Your task to perform on an android device: turn on javascript in the chrome app Image 0: 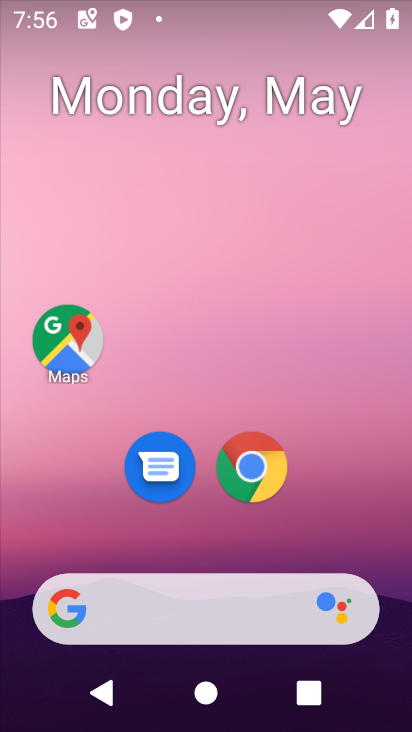
Step 0: click (261, 465)
Your task to perform on an android device: turn on javascript in the chrome app Image 1: 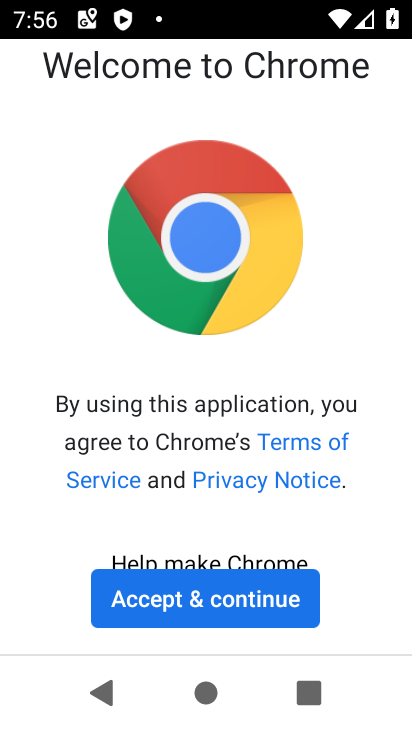
Step 1: click (282, 607)
Your task to perform on an android device: turn on javascript in the chrome app Image 2: 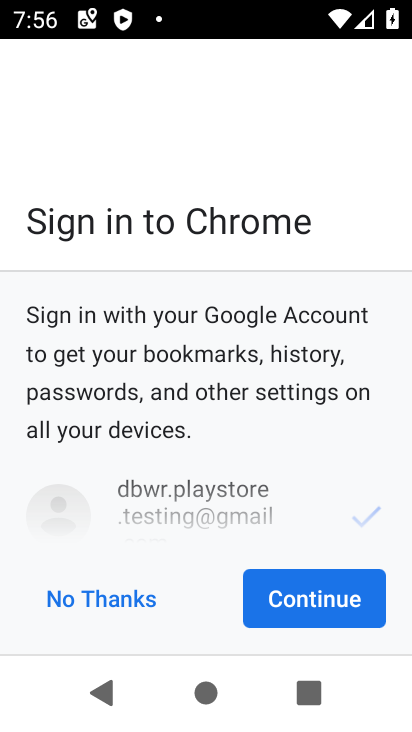
Step 2: click (328, 596)
Your task to perform on an android device: turn on javascript in the chrome app Image 3: 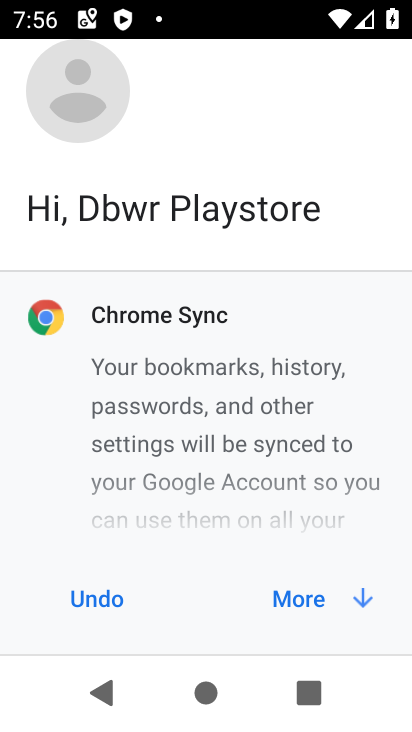
Step 3: click (338, 596)
Your task to perform on an android device: turn on javascript in the chrome app Image 4: 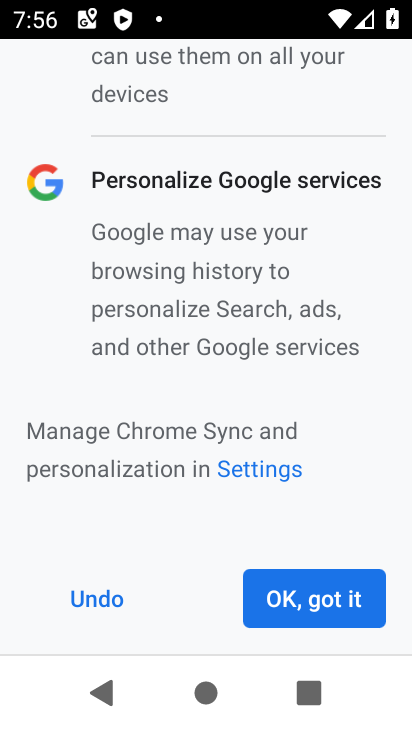
Step 4: click (333, 599)
Your task to perform on an android device: turn on javascript in the chrome app Image 5: 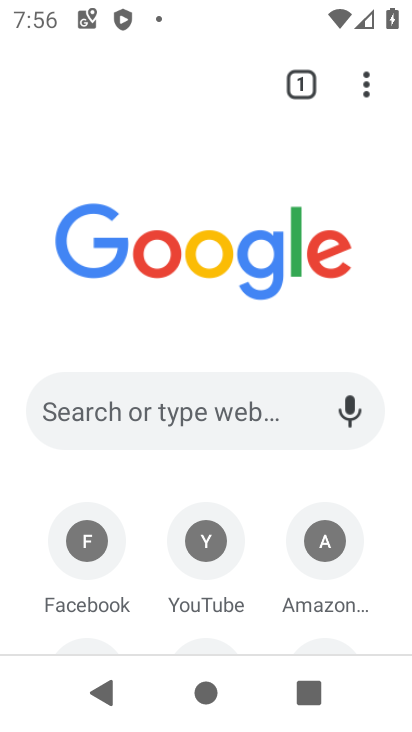
Step 5: click (372, 80)
Your task to perform on an android device: turn on javascript in the chrome app Image 6: 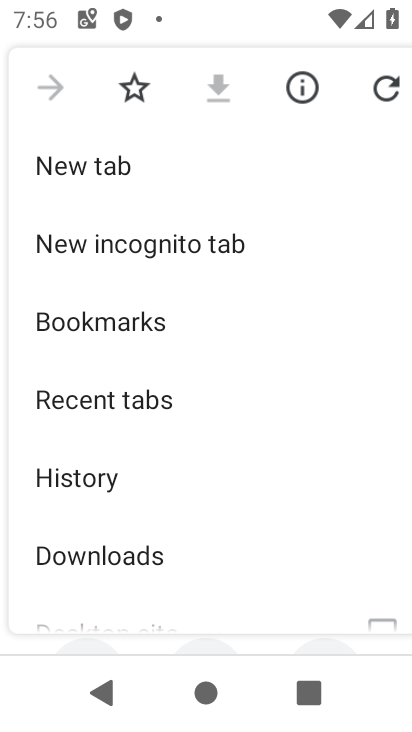
Step 6: drag from (234, 576) to (221, 105)
Your task to perform on an android device: turn on javascript in the chrome app Image 7: 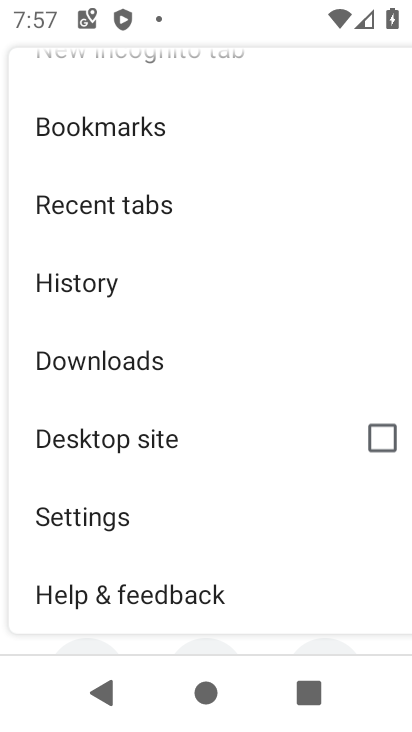
Step 7: click (168, 523)
Your task to perform on an android device: turn on javascript in the chrome app Image 8: 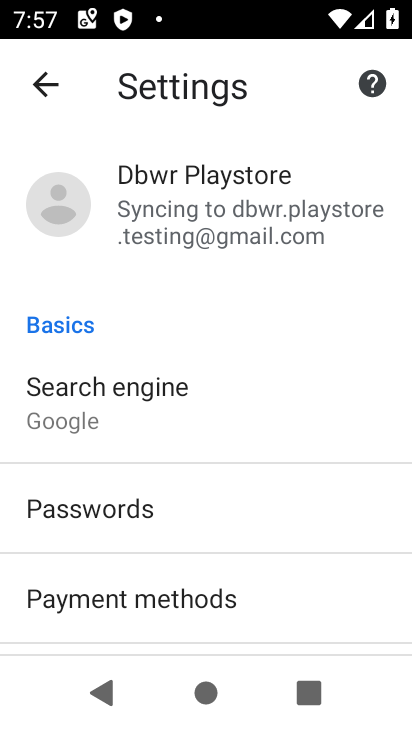
Step 8: drag from (223, 574) to (241, 192)
Your task to perform on an android device: turn on javascript in the chrome app Image 9: 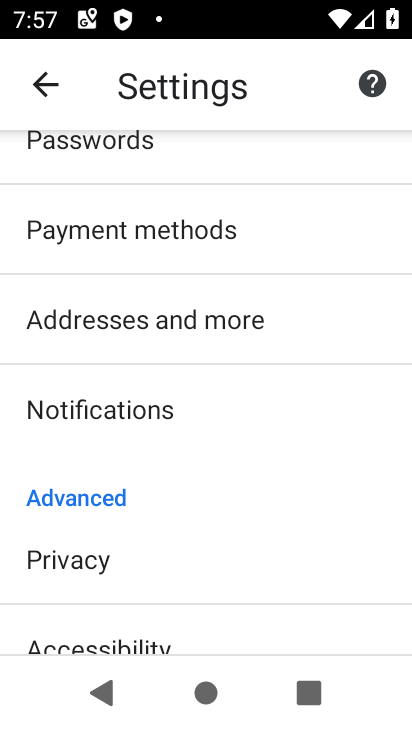
Step 9: drag from (214, 590) to (210, 209)
Your task to perform on an android device: turn on javascript in the chrome app Image 10: 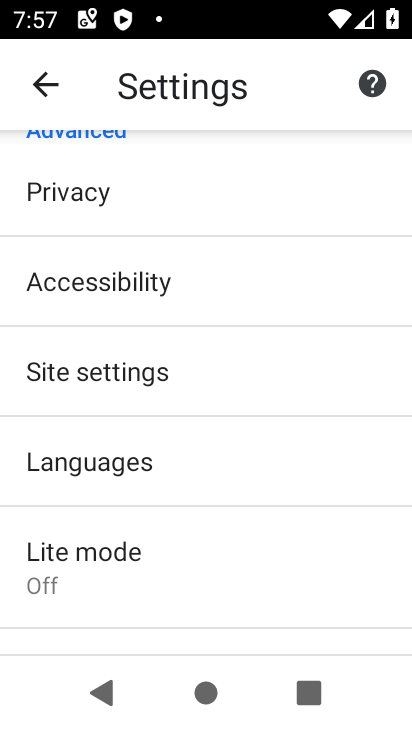
Step 10: click (183, 383)
Your task to perform on an android device: turn on javascript in the chrome app Image 11: 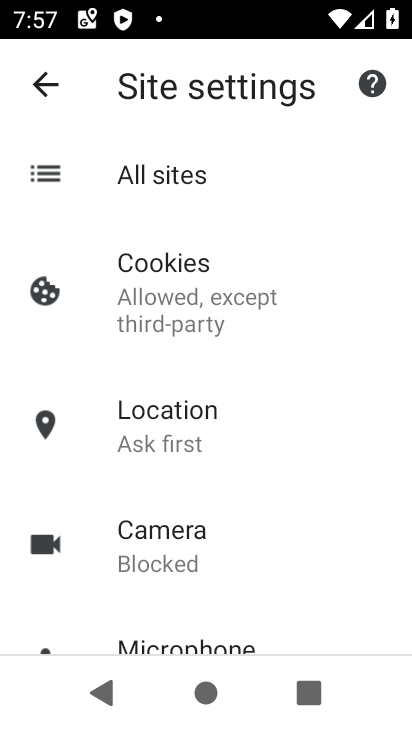
Step 11: drag from (253, 582) to (268, 237)
Your task to perform on an android device: turn on javascript in the chrome app Image 12: 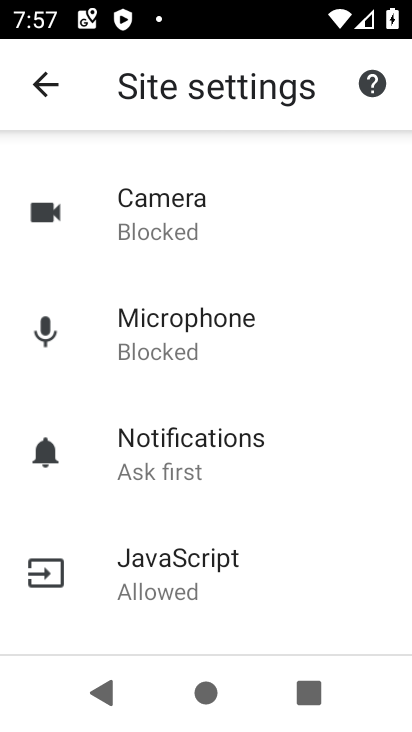
Step 12: click (233, 559)
Your task to perform on an android device: turn on javascript in the chrome app Image 13: 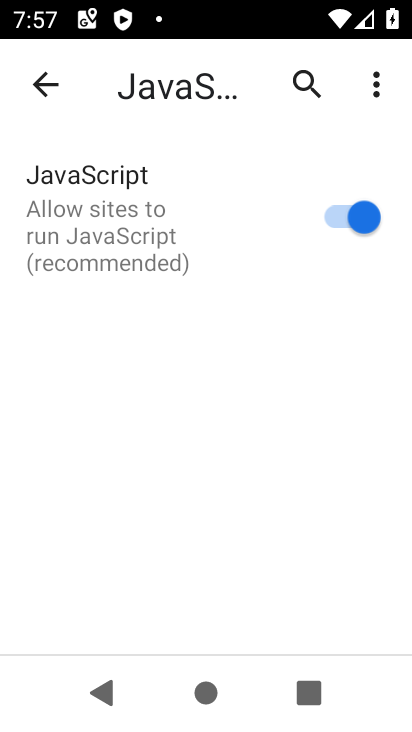
Step 13: task complete